Your task to perform on an android device: Open Reddit.com Image 0: 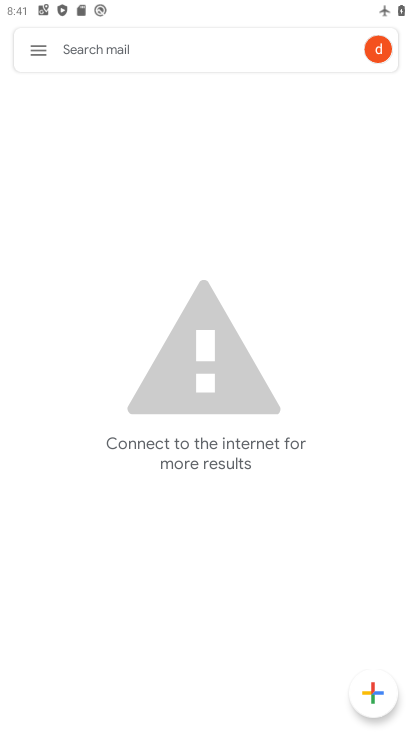
Step 0: press home button
Your task to perform on an android device: Open Reddit.com Image 1: 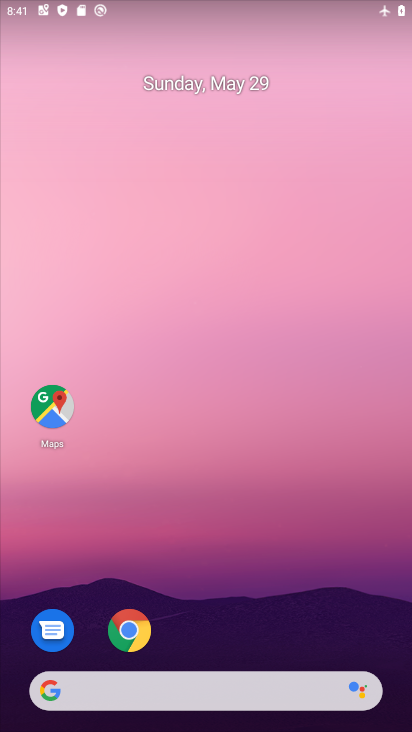
Step 1: click (140, 632)
Your task to perform on an android device: Open Reddit.com Image 2: 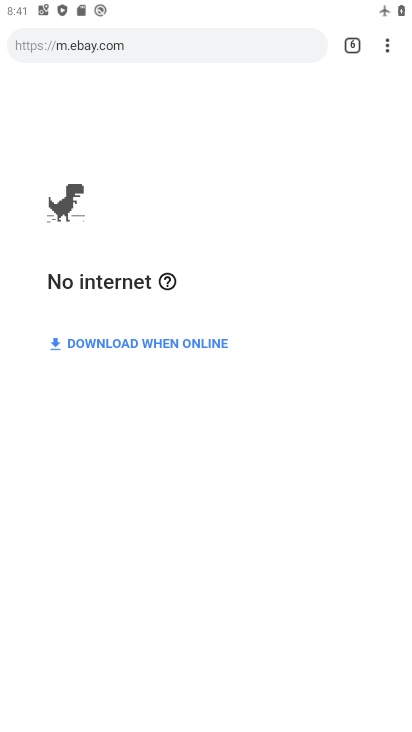
Step 2: click (361, 51)
Your task to perform on an android device: Open Reddit.com Image 3: 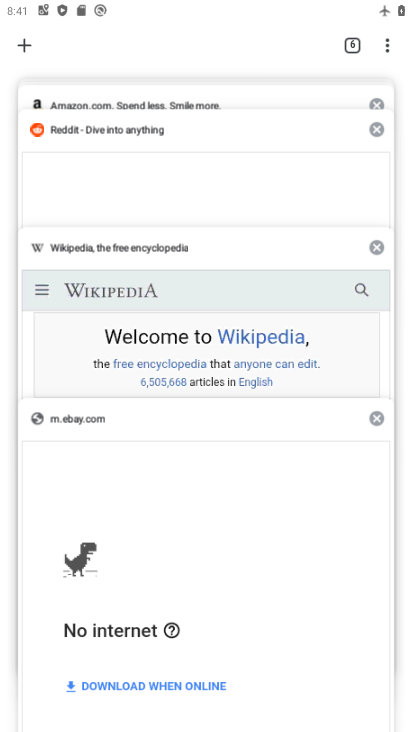
Step 3: click (109, 145)
Your task to perform on an android device: Open Reddit.com Image 4: 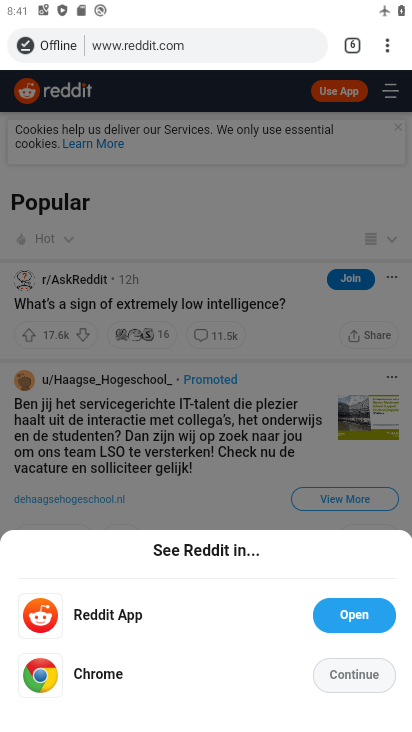
Step 4: task complete